Your task to perform on an android device: Show me popular videos on Youtube Image 0: 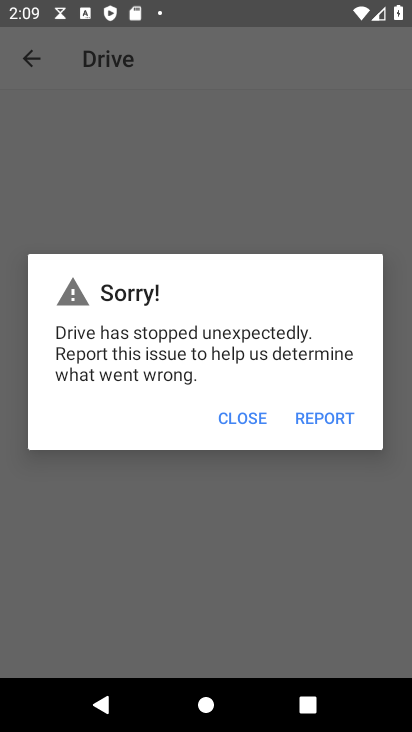
Step 0: press home button
Your task to perform on an android device: Show me popular videos on Youtube Image 1: 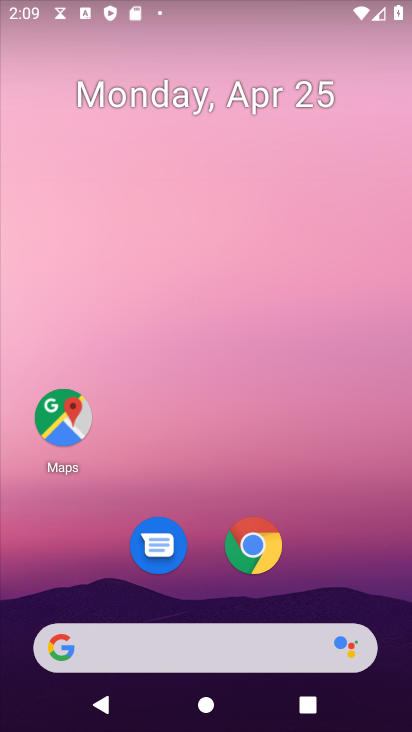
Step 1: drag from (216, 639) to (151, 51)
Your task to perform on an android device: Show me popular videos on Youtube Image 2: 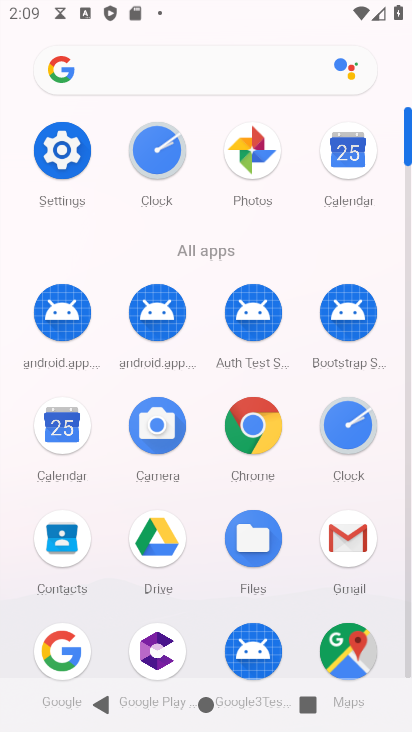
Step 2: drag from (181, 587) to (141, 107)
Your task to perform on an android device: Show me popular videos on Youtube Image 3: 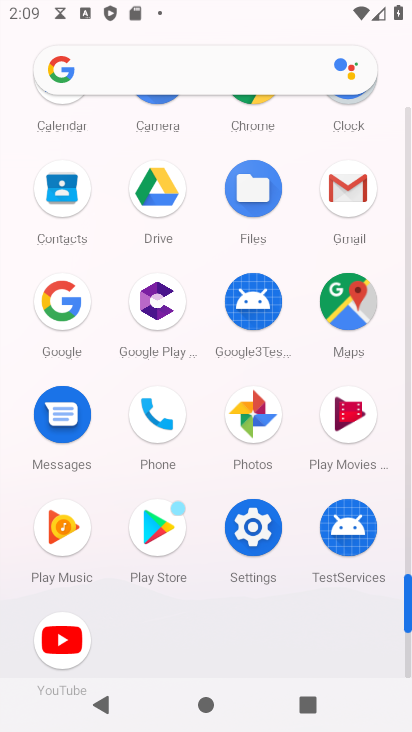
Step 3: click (64, 644)
Your task to perform on an android device: Show me popular videos on Youtube Image 4: 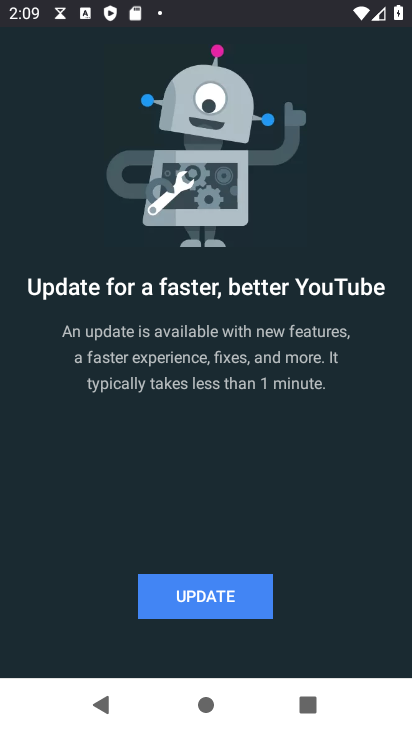
Step 4: click (223, 590)
Your task to perform on an android device: Show me popular videos on Youtube Image 5: 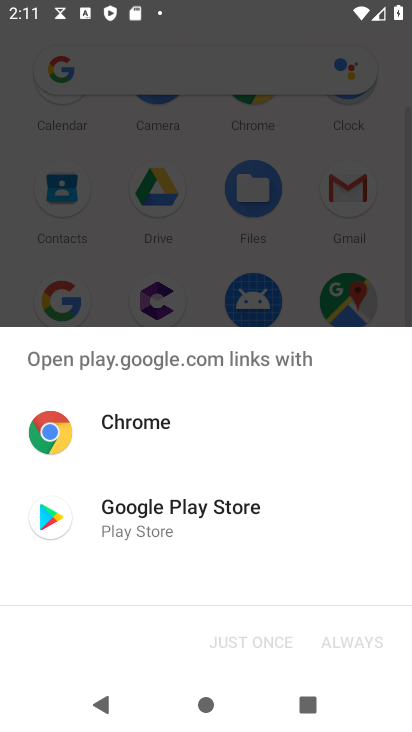
Step 5: click (149, 515)
Your task to perform on an android device: Show me popular videos on Youtube Image 6: 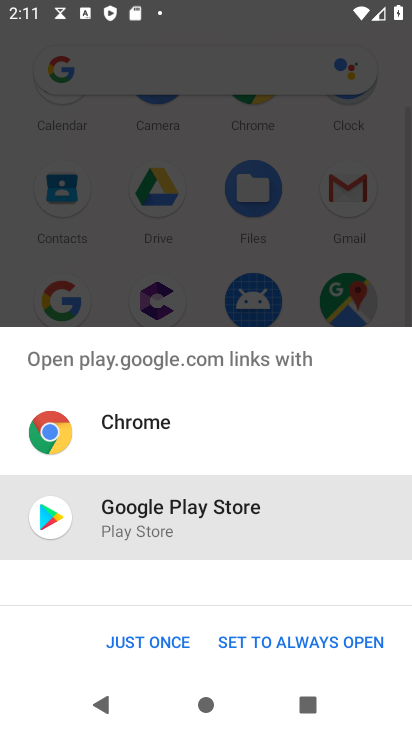
Step 6: click (170, 646)
Your task to perform on an android device: Show me popular videos on Youtube Image 7: 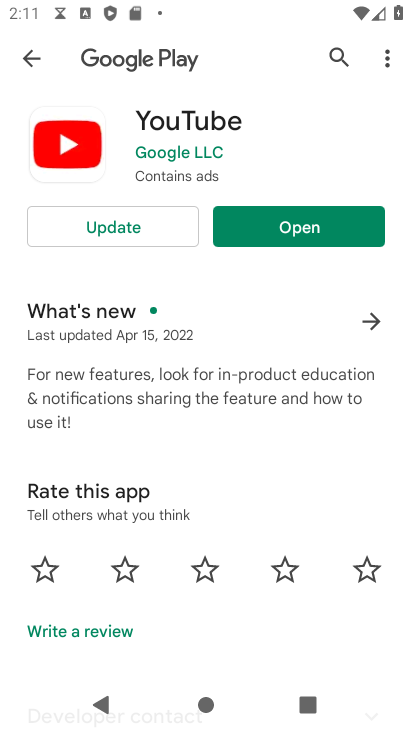
Step 7: click (189, 227)
Your task to perform on an android device: Show me popular videos on Youtube Image 8: 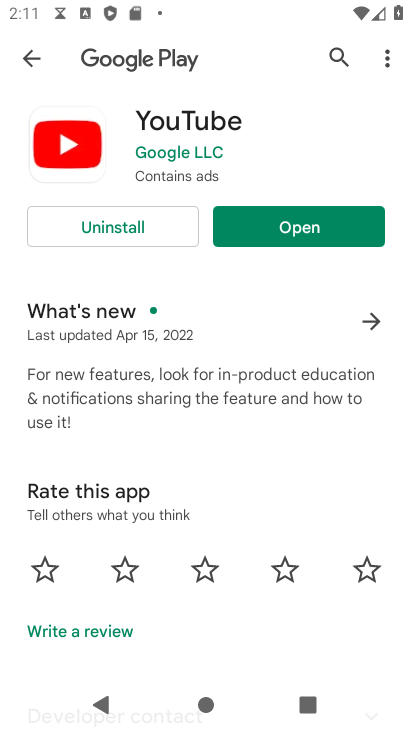
Step 8: click (300, 217)
Your task to perform on an android device: Show me popular videos on Youtube Image 9: 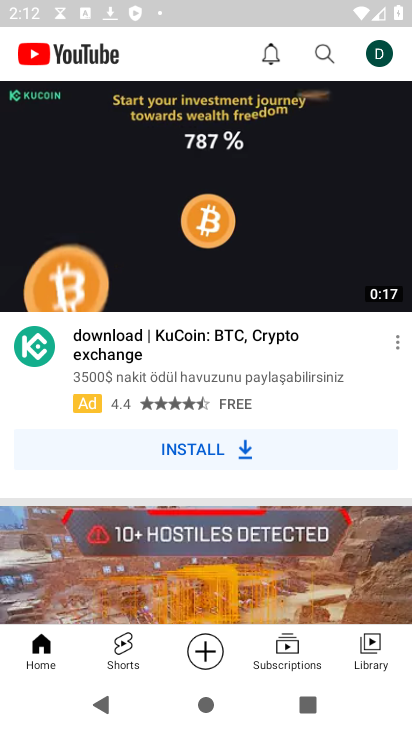
Step 9: task complete